Your task to perform on an android device: allow cookies in the chrome app Image 0: 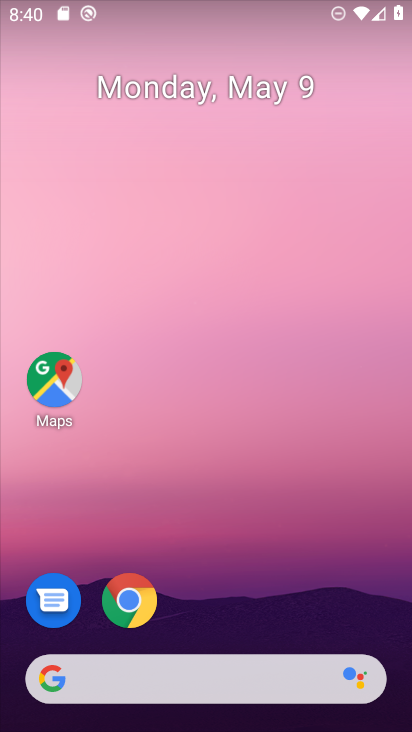
Step 0: drag from (222, 562) to (198, 2)
Your task to perform on an android device: allow cookies in the chrome app Image 1: 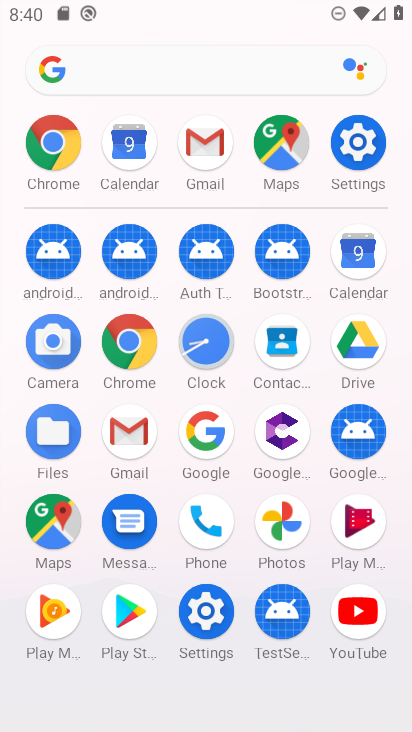
Step 1: drag from (2, 559) to (16, 274)
Your task to perform on an android device: allow cookies in the chrome app Image 2: 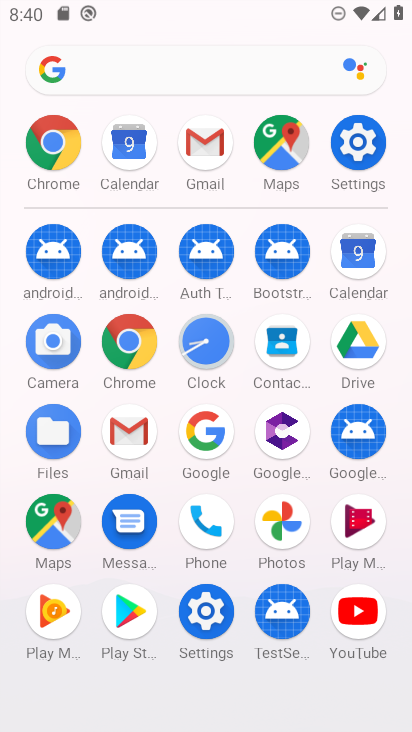
Step 2: click (127, 339)
Your task to perform on an android device: allow cookies in the chrome app Image 3: 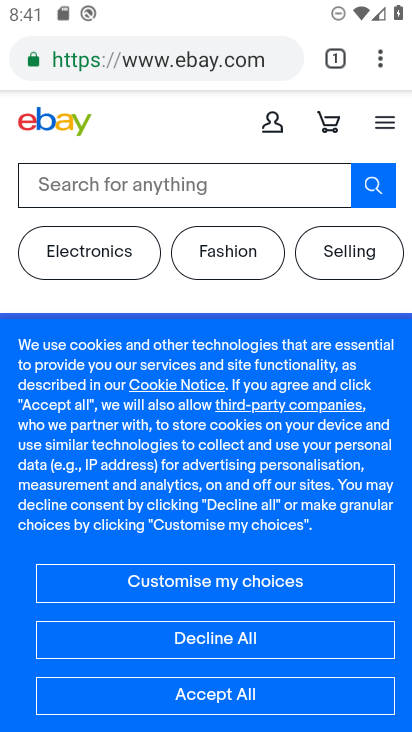
Step 3: drag from (377, 60) to (186, 624)
Your task to perform on an android device: allow cookies in the chrome app Image 4: 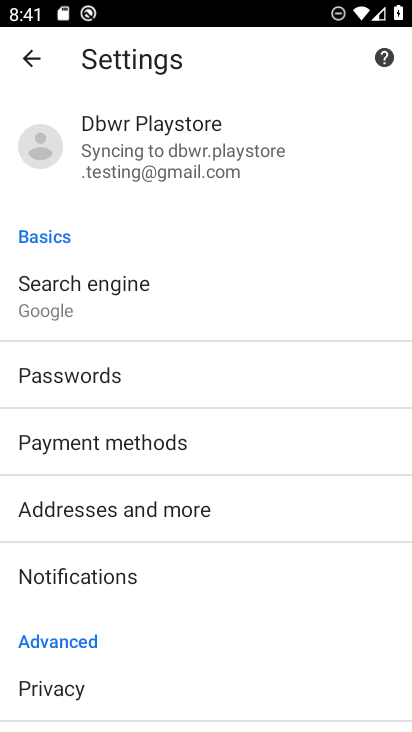
Step 4: click (114, 684)
Your task to perform on an android device: allow cookies in the chrome app Image 5: 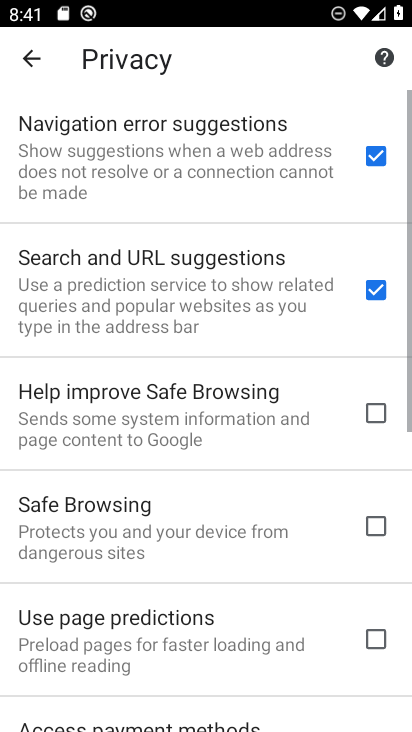
Step 5: drag from (207, 655) to (231, 86)
Your task to perform on an android device: allow cookies in the chrome app Image 6: 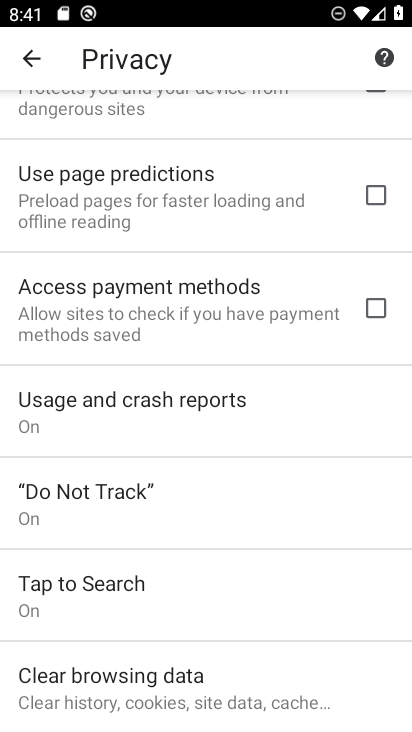
Step 6: click (138, 658)
Your task to perform on an android device: allow cookies in the chrome app Image 7: 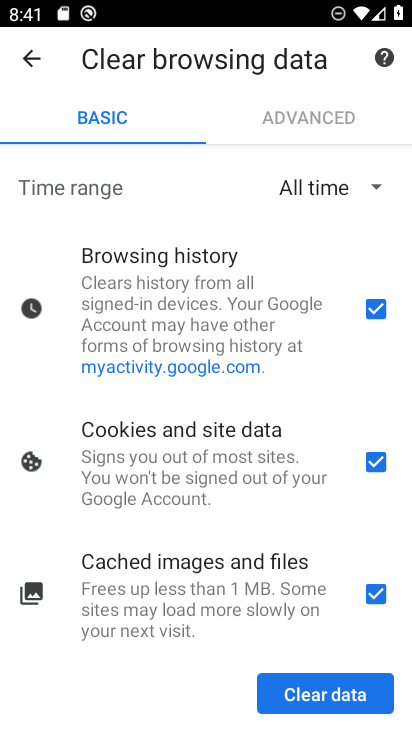
Step 7: click (38, 55)
Your task to perform on an android device: allow cookies in the chrome app Image 8: 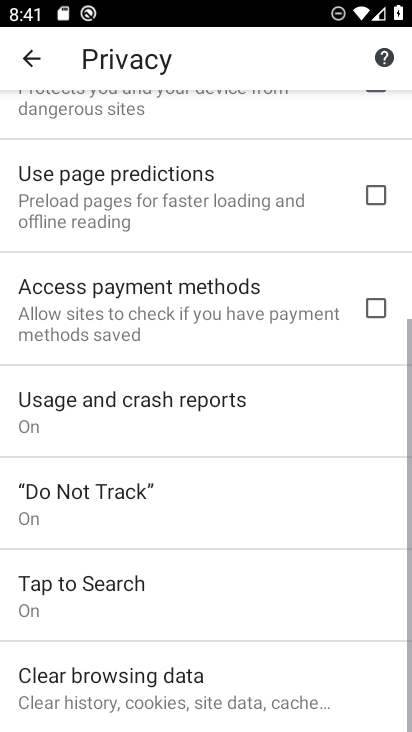
Step 8: click (38, 55)
Your task to perform on an android device: allow cookies in the chrome app Image 9: 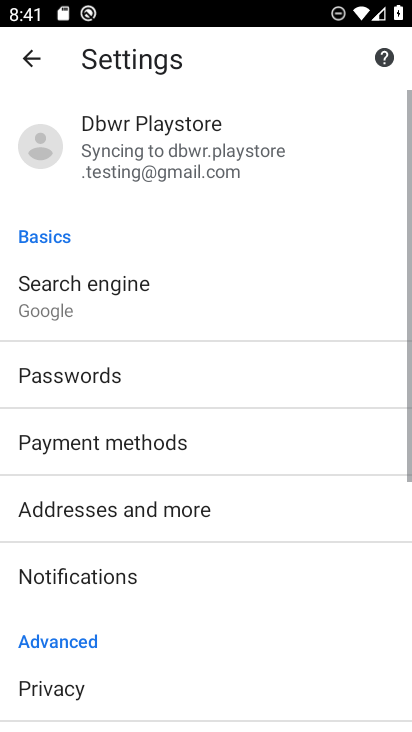
Step 9: click (38, 55)
Your task to perform on an android device: allow cookies in the chrome app Image 10: 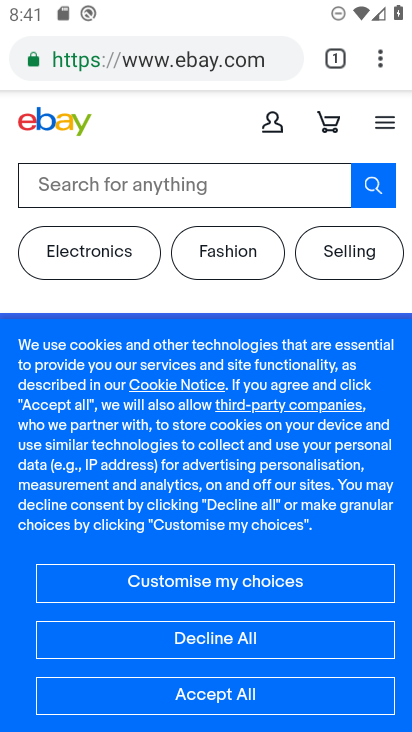
Step 10: drag from (382, 63) to (189, 625)
Your task to perform on an android device: allow cookies in the chrome app Image 11: 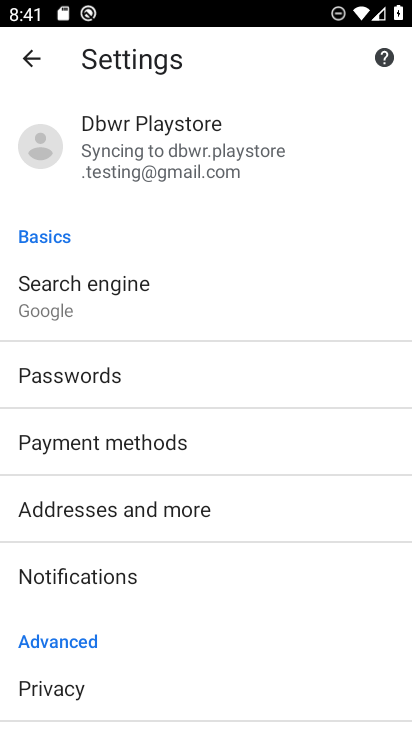
Step 11: drag from (239, 613) to (239, 200)
Your task to perform on an android device: allow cookies in the chrome app Image 12: 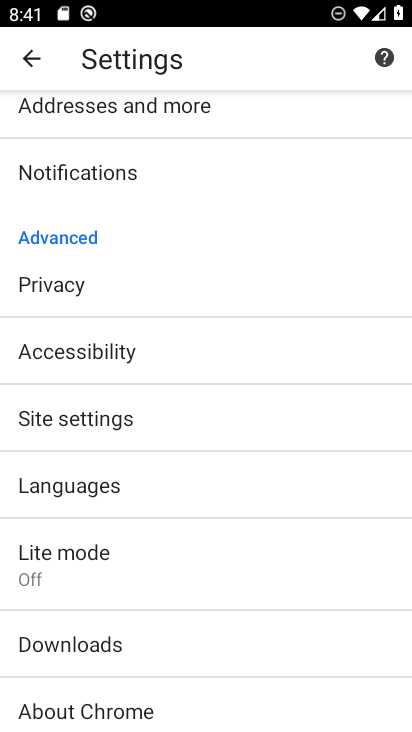
Step 12: drag from (209, 644) to (262, 238)
Your task to perform on an android device: allow cookies in the chrome app Image 13: 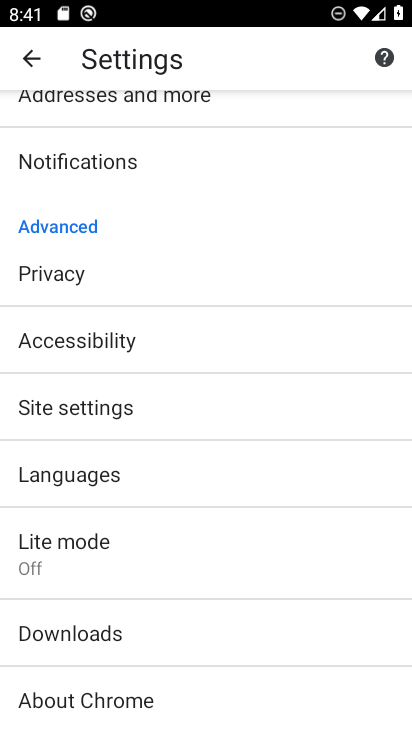
Step 13: click (159, 415)
Your task to perform on an android device: allow cookies in the chrome app Image 14: 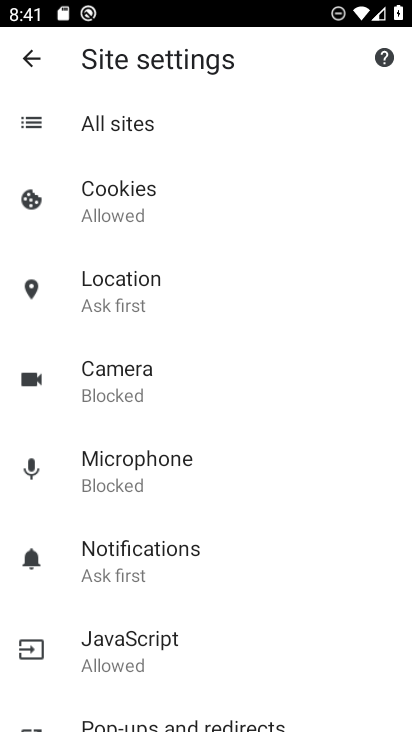
Step 14: click (175, 201)
Your task to perform on an android device: allow cookies in the chrome app Image 15: 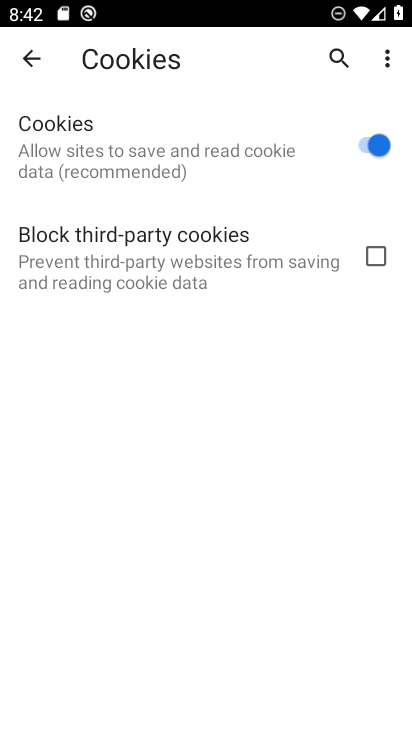
Step 15: task complete